Your task to perform on an android device: Go to Android settings Image 0: 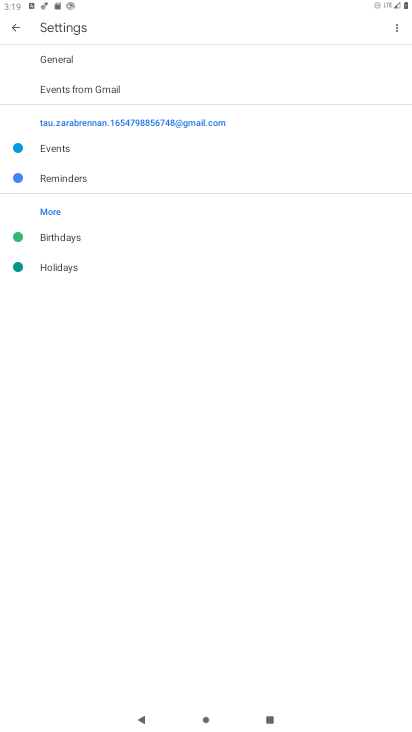
Step 0: press home button
Your task to perform on an android device: Go to Android settings Image 1: 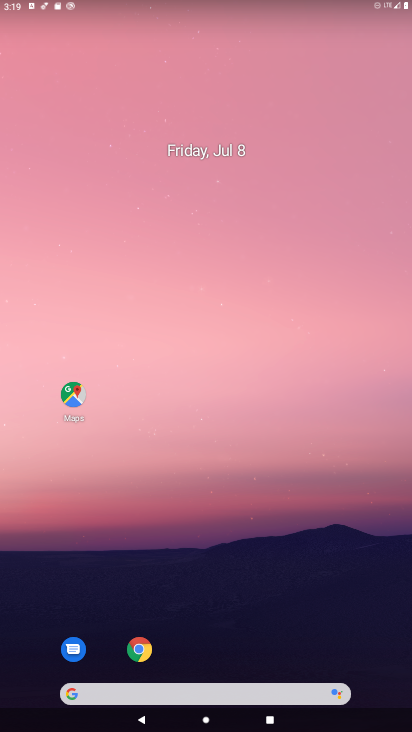
Step 1: drag from (374, 647) to (309, 125)
Your task to perform on an android device: Go to Android settings Image 2: 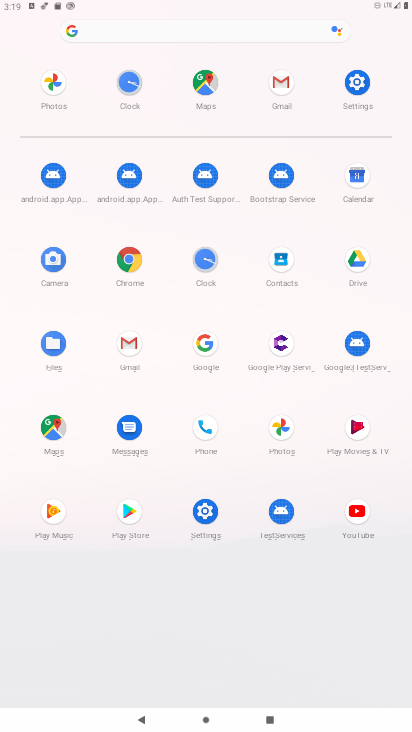
Step 2: click (205, 513)
Your task to perform on an android device: Go to Android settings Image 3: 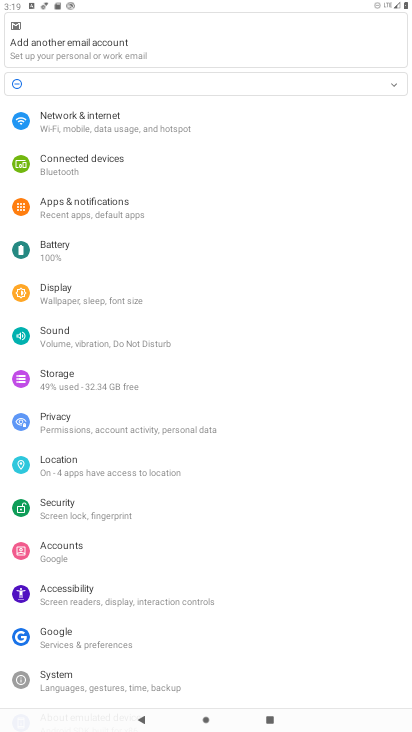
Step 3: drag from (224, 676) to (238, 235)
Your task to perform on an android device: Go to Android settings Image 4: 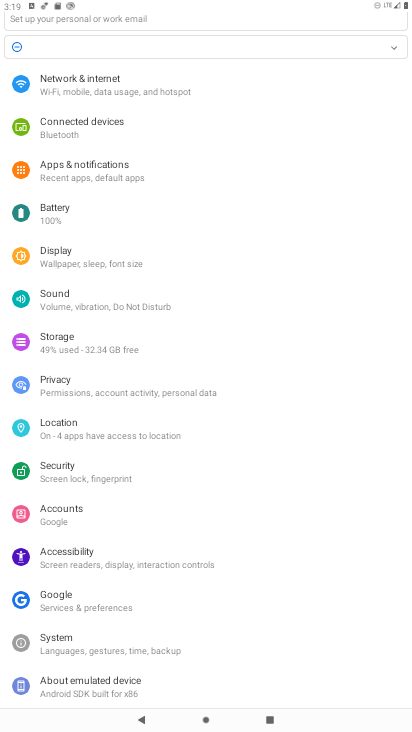
Step 4: click (81, 676)
Your task to perform on an android device: Go to Android settings Image 5: 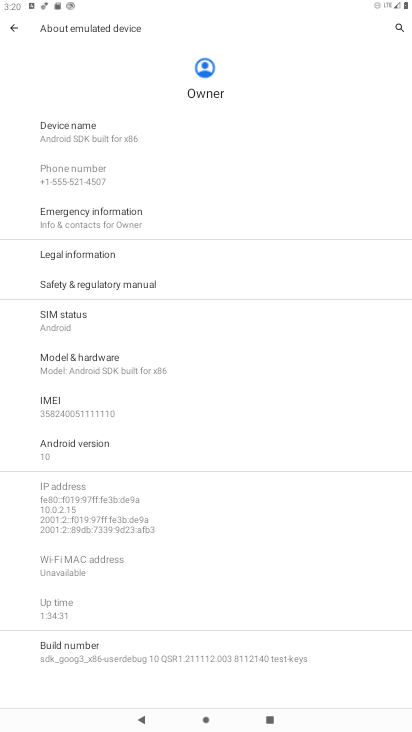
Step 5: task complete